Your task to perform on an android device: change keyboard looks Image 0: 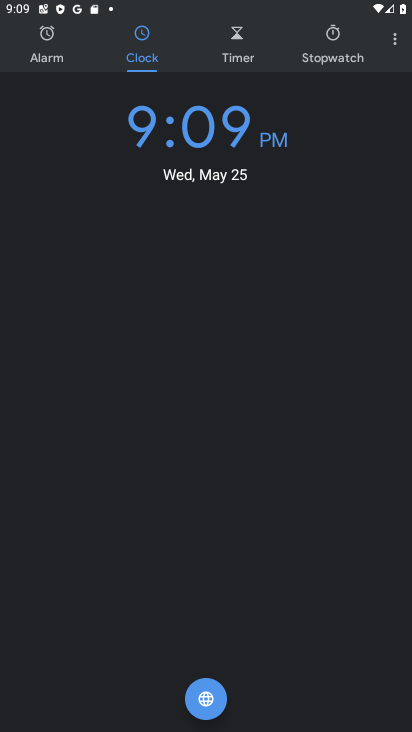
Step 0: press home button
Your task to perform on an android device: change keyboard looks Image 1: 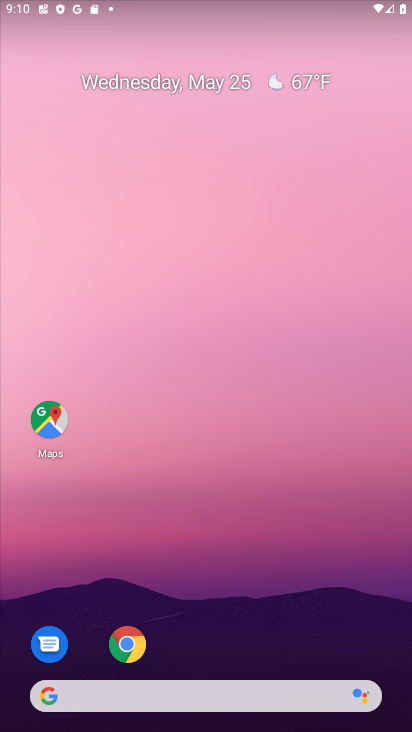
Step 1: drag from (239, 612) to (266, 199)
Your task to perform on an android device: change keyboard looks Image 2: 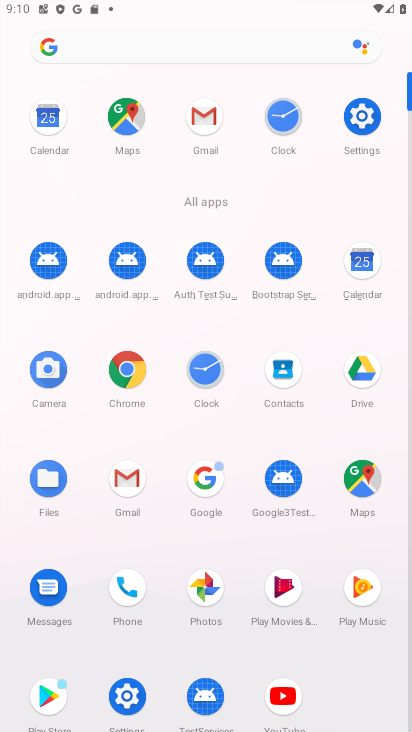
Step 2: click (121, 690)
Your task to perform on an android device: change keyboard looks Image 3: 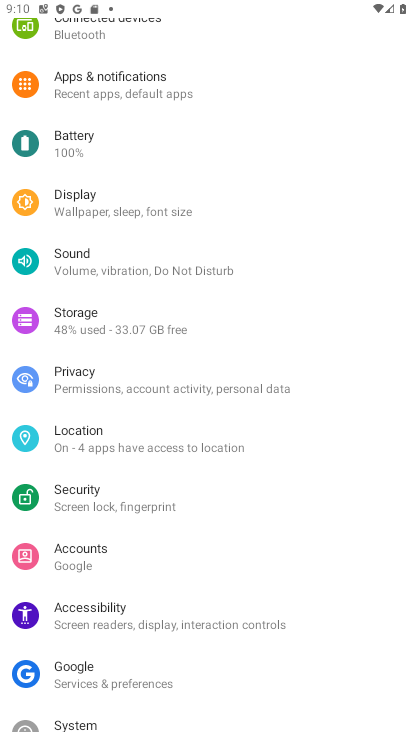
Step 3: drag from (111, 702) to (134, 250)
Your task to perform on an android device: change keyboard looks Image 4: 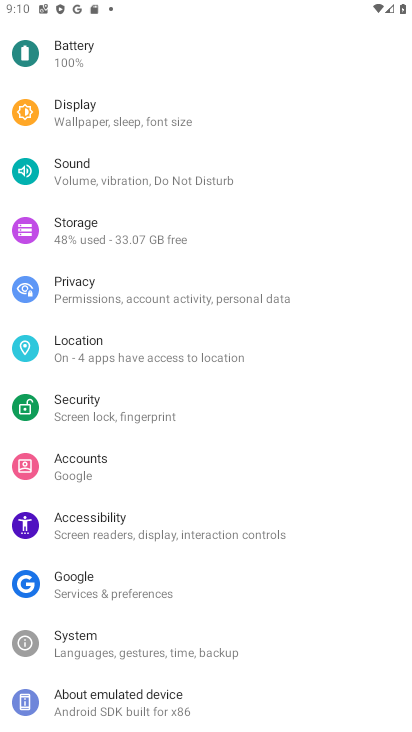
Step 4: click (120, 642)
Your task to perform on an android device: change keyboard looks Image 5: 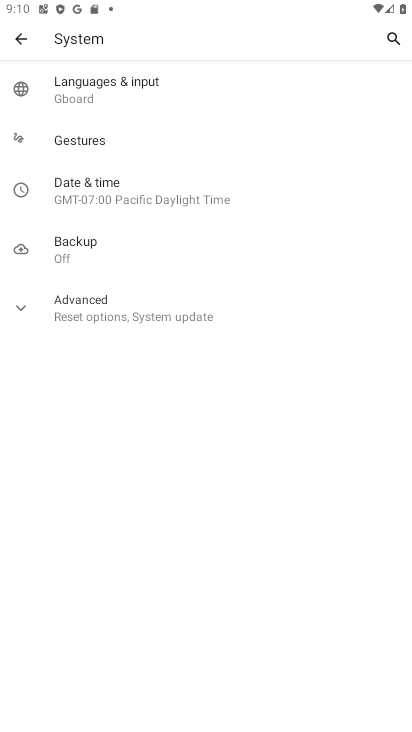
Step 5: click (37, 309)
Your task to perform on an android device: change keyboard looks Image 6: 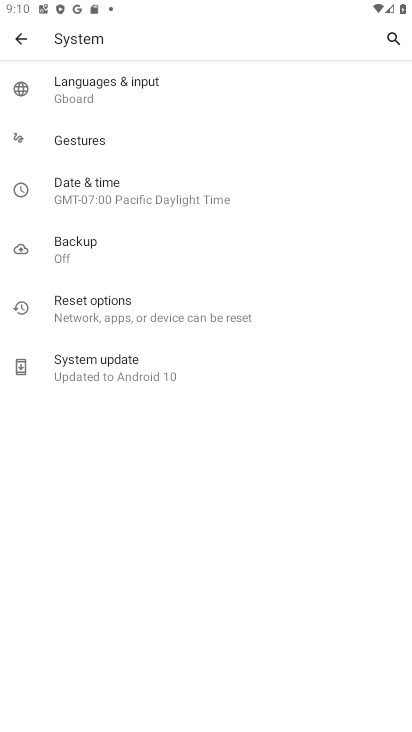
Step 6: click (102, 93)
Your task to perform on an android device: change keyboard looks Image 7: 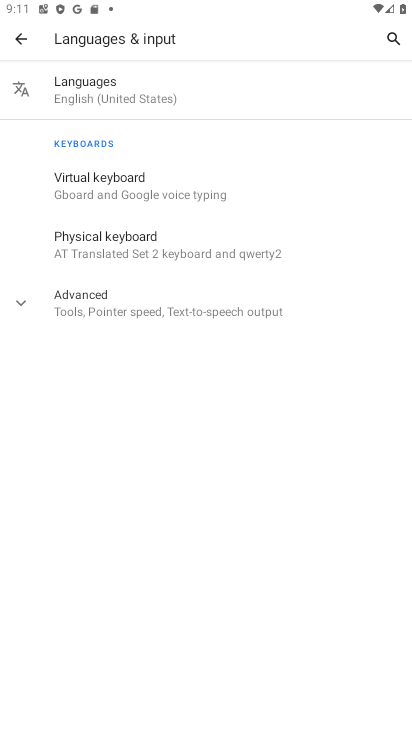
Step 7: click (160, 180)
Your task to perform on an android device: change keyboard looks Image 8: 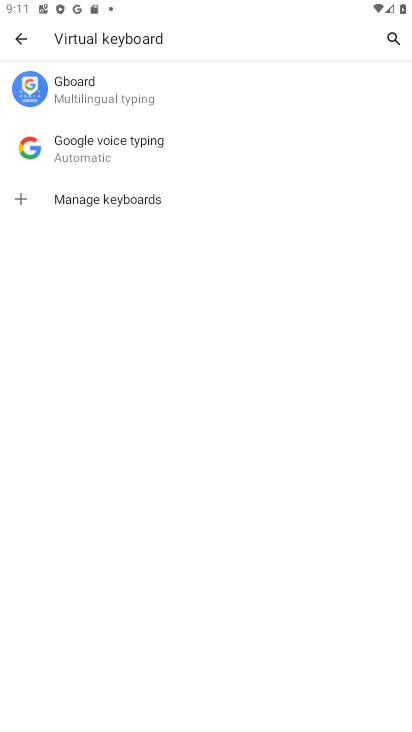
Step 8: click (103, 79)
Your task to perform on an android device: change keyboard looks Image 9: 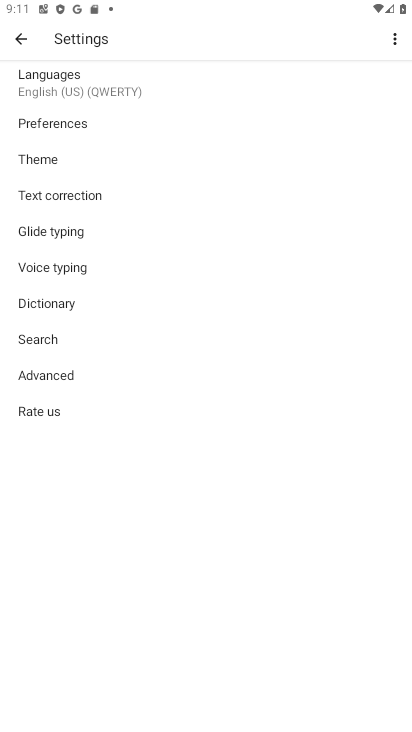
Step 9: click (60, 152)
Your task to perform on an android device: change keyboard looks Image 10: 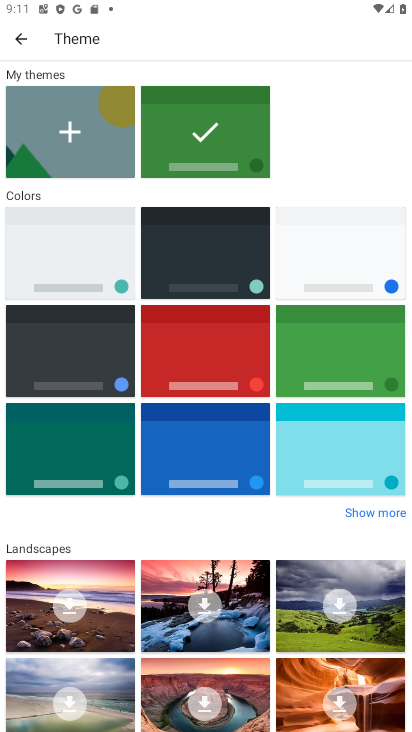
Step 10: click (209, 366)
Your task to perform on an android device: change keyboard looks Image 11: 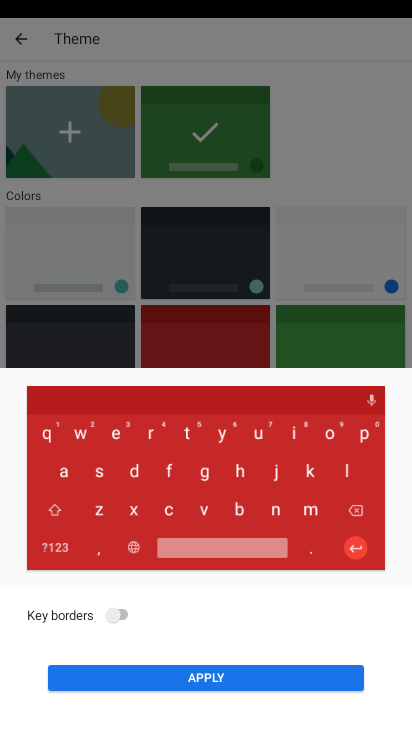
Step 11: click (212, 673)
Your task to perform on an android device: change keyboard looks Image 12: 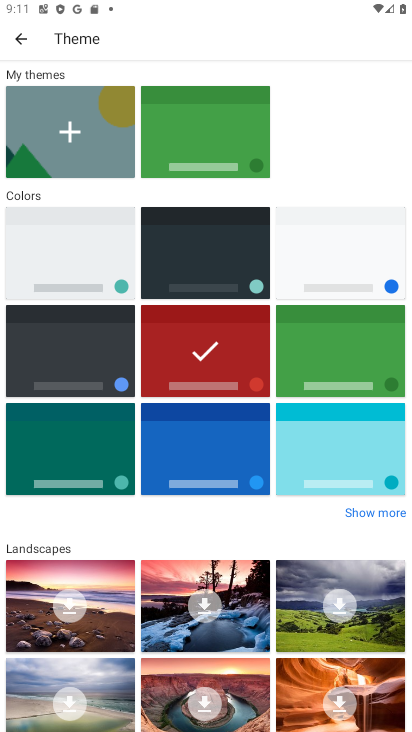
Step 12: task complete